Your task to perform on an android device: Go to internet settings Image 0: 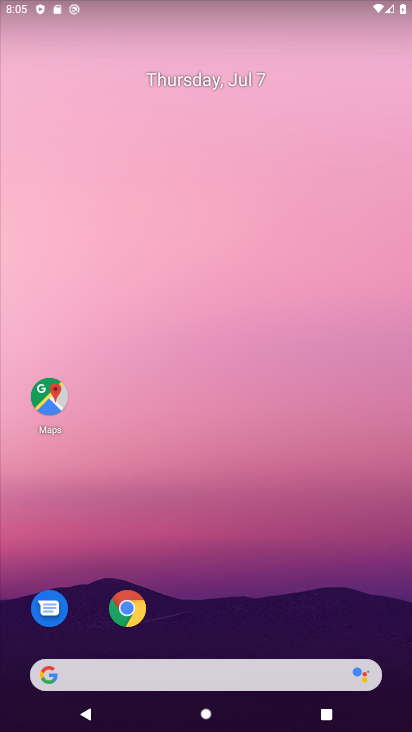
Step 0: drag from (355, 628) to (390, 110)
Your task to perform on an android device: Go to internet settings Image 1: 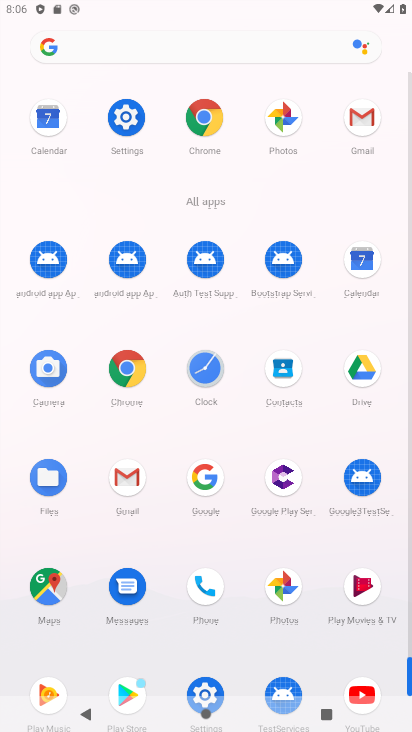
Step 1: click (135, 119)
Your task to perform on an android device: Go to internet settings Image 2: 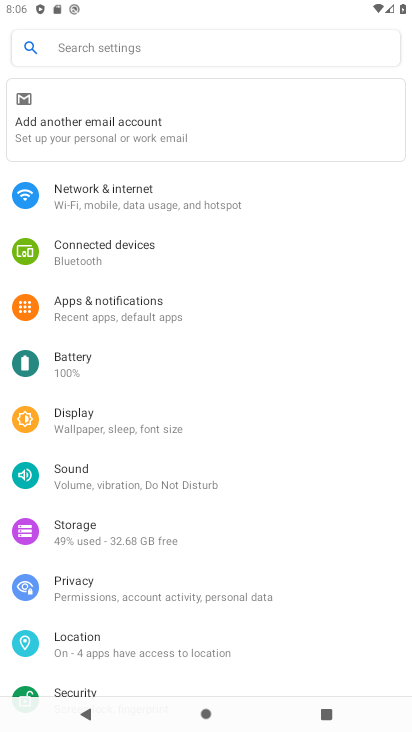
Step 2: click (134, 190)
Your task to perform on an android device: Go to internet settings Image 3: 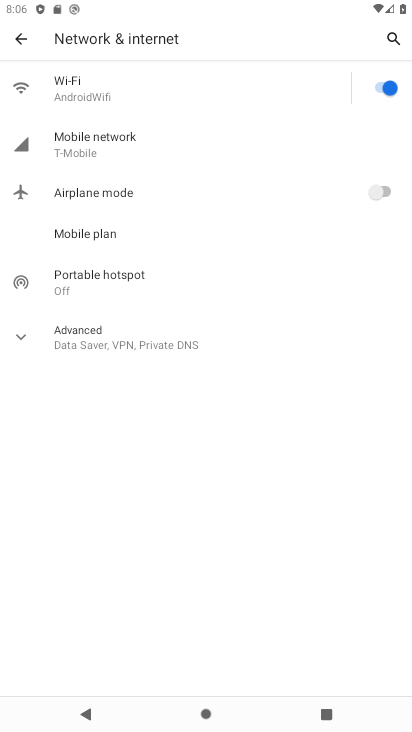
Step 3: task complete